Your task to perform on an android device: Search for "usb-c" on target.com, select the first entry, add it to the cart, then select checkout. Image 0: 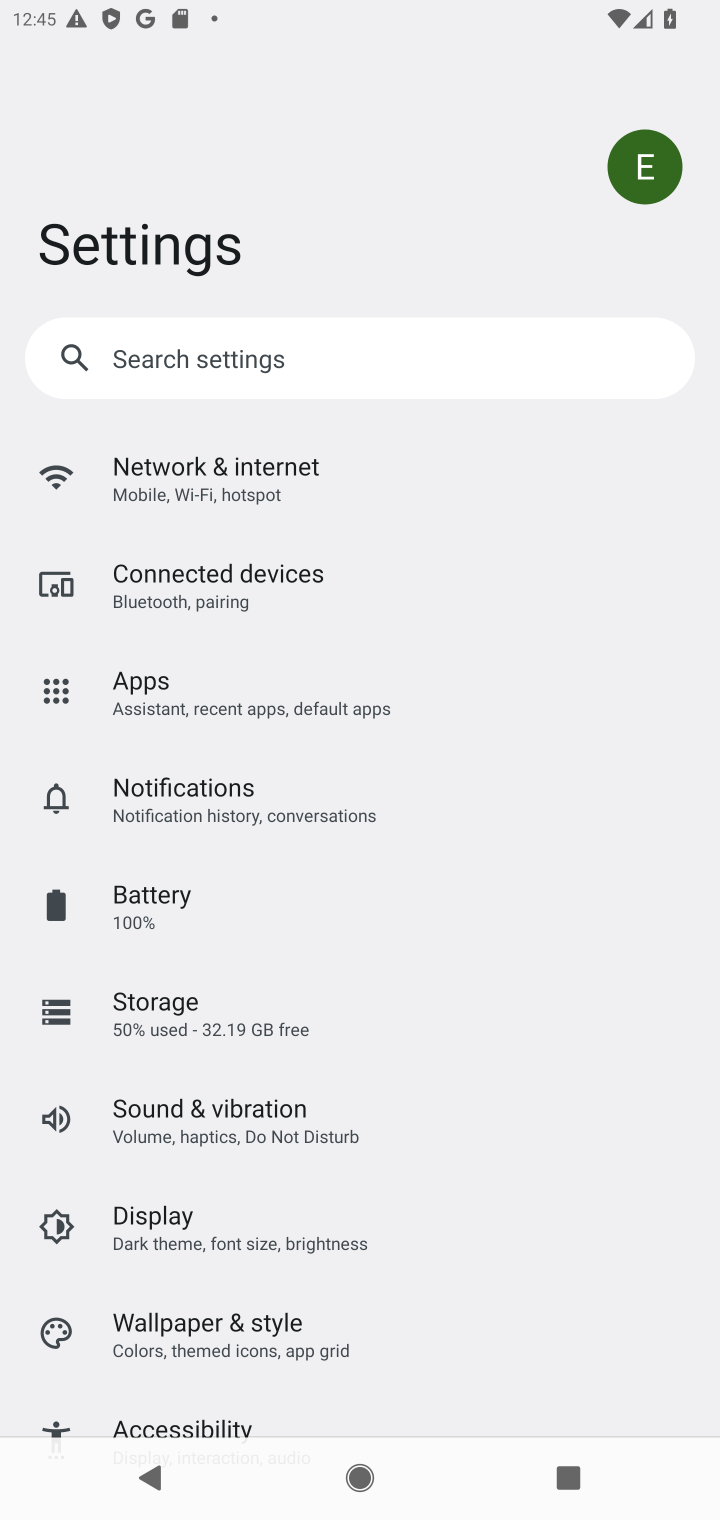
Step 0: task complete